Your task to perform on an android device: Play the last video I watched on Youtube Image 0: 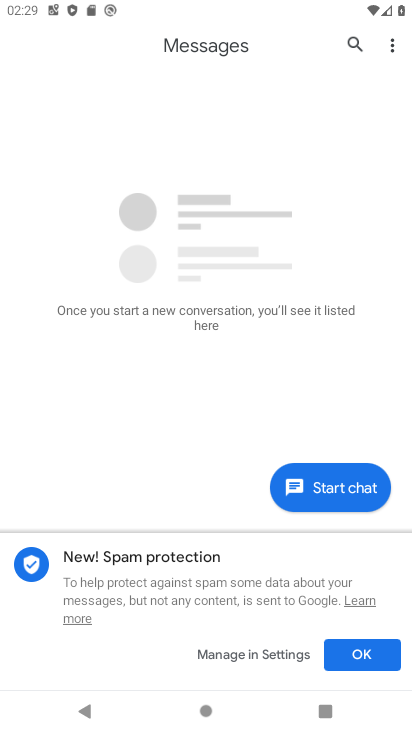
Step 0: drag from (396, 657) to (215, 259)
Your task to perform on an android device: Play the last video I watched on Youtube Image 1: 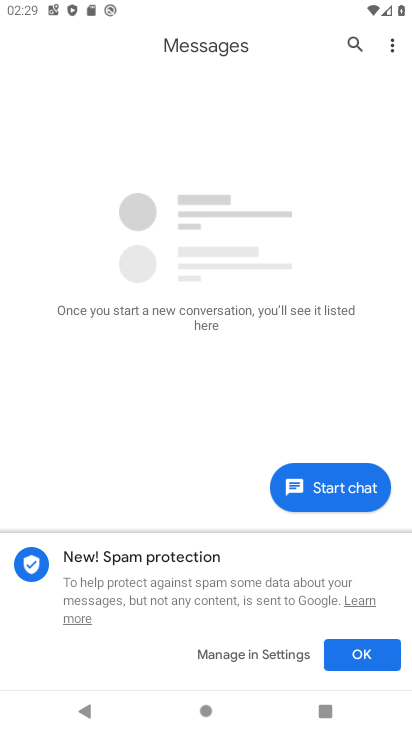
Step 1: press home button
Your task to perform on an android device: Play the last video I watched on Youtube Image 2: 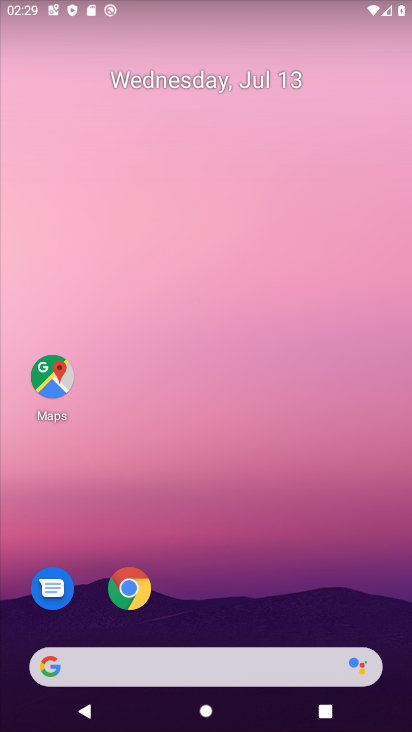
Step 2: drag from (383, 724) to (156, 68)
Your task to perform on an android device: Play the last video I watched on Youtube Image 3: 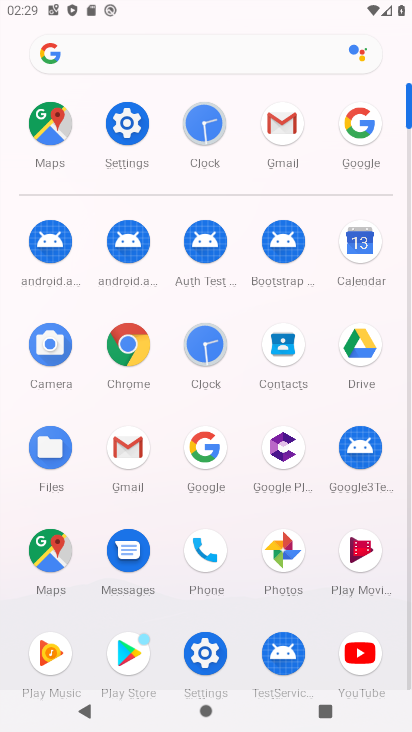
Step 3: click (354, 646)
Your task to perform on an android device: Play the last video I watched on Youtube Image 4: 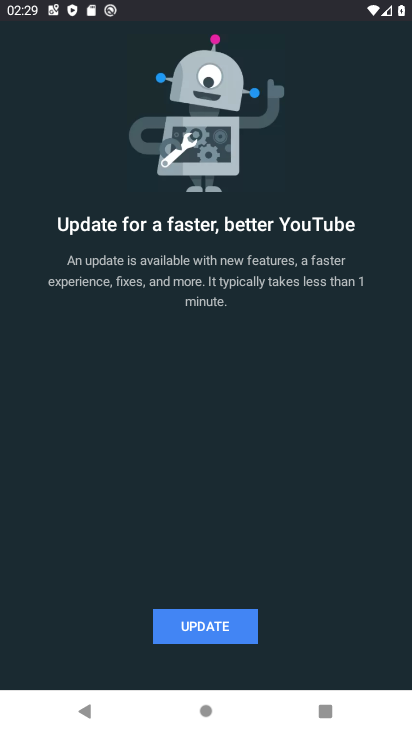
Step 4: click (186, 619)
Your task to perform on an android device: Play the last video I watched on Youtube Image 5: 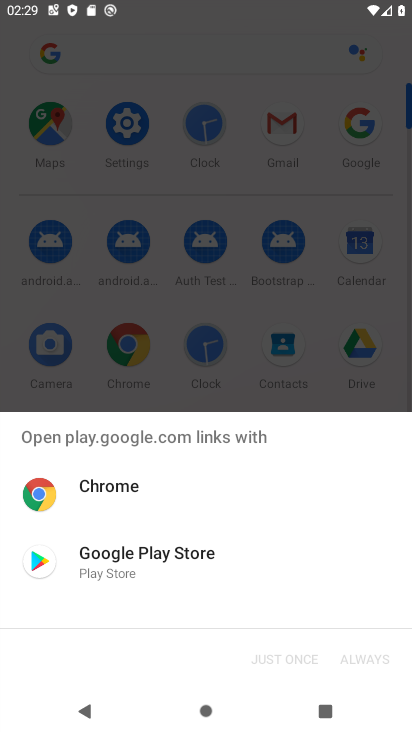
Step 5: click (105, 559)
Your task to perform on an android device: Play the last video I watched on Youtube Image 6: 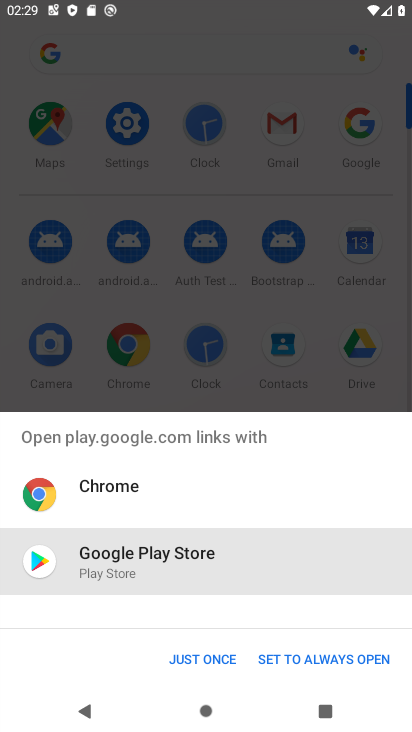
Step 6: click (193, 661)
Your task to perform on an android device: Play the last video I watched on Youtube Image 7: 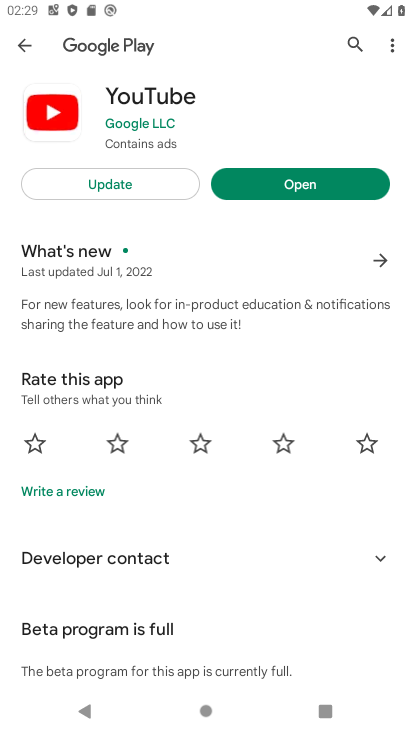
Step 7: click (90, 175)
Your task to perform on an android device: Play the last video I watched on Youtube Image 8: 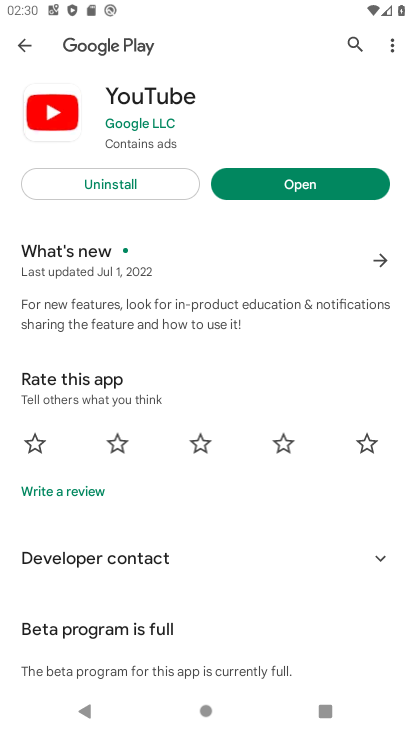
Step 8: click (277, 185)
Your task to perform on an android device: Play the last video I watched on Youtube Image 9: 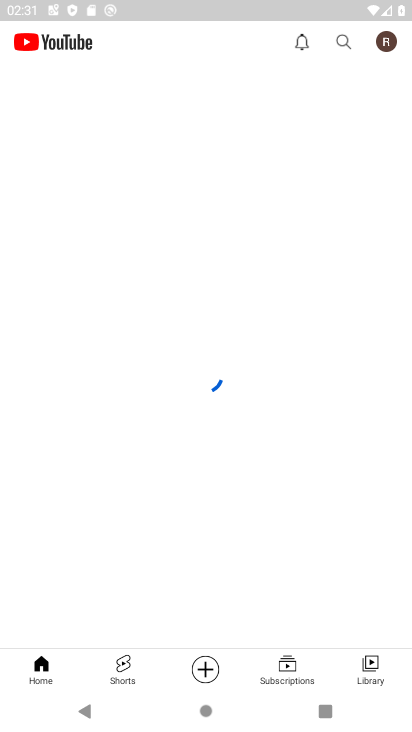
Step 9: click (356, 661)
Your task to perform on an android device: Play the last video I watched on Youtube Image 10: 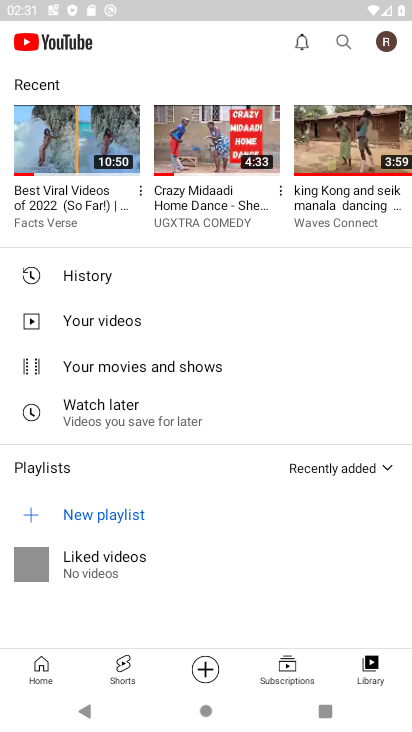
Step 10: click (82, 136)
Your task to perform on an android device: Play the last video I watched on Youtube Image 11: 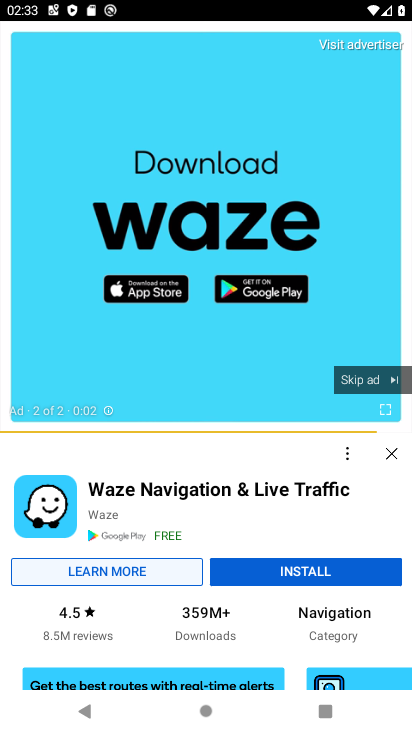
Step 11: task complete